Your task to perform on an android device: turn off smart reply in the gmail app Image 0: 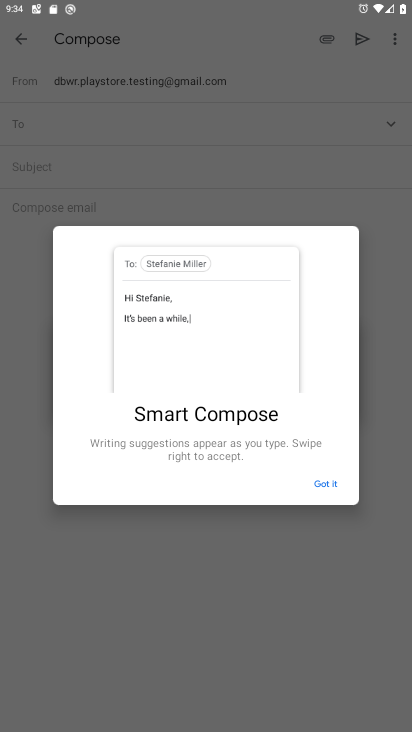
Step 0: press home button
Your task to perform on an android device: turn off smart reply in the gmail app Image 1: 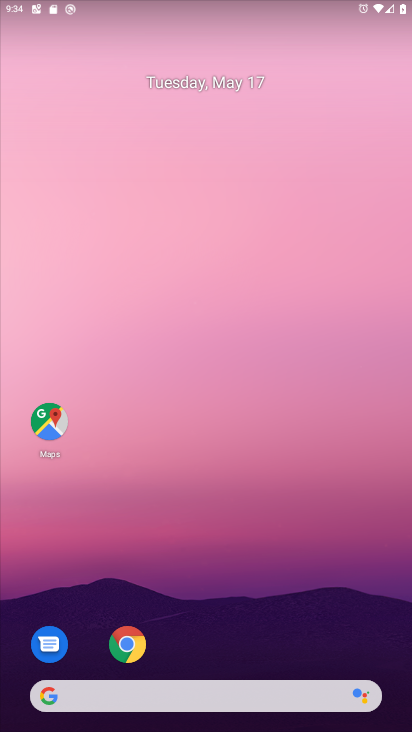
Step 1: drag from (207, 651) to (228, 59)
Your task to perform on an android device: turn off smart reply in the gmail app Image 2: 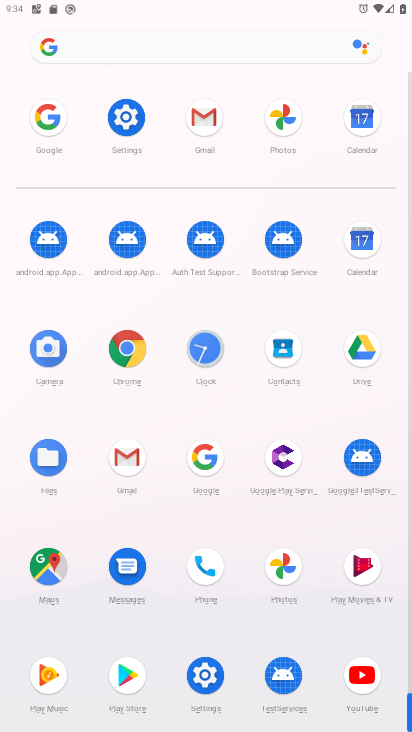
Step 2: click (126, 449)
Your task to perform on an android device: turn off smart reply in the gmail app Image 3: 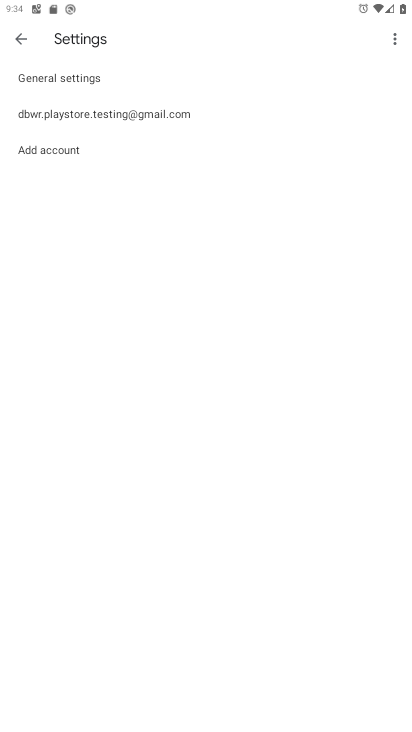
Step 3: click (69, 105)
Your task to perform on an android device: turn off smart reply in the gmail app Image 4: 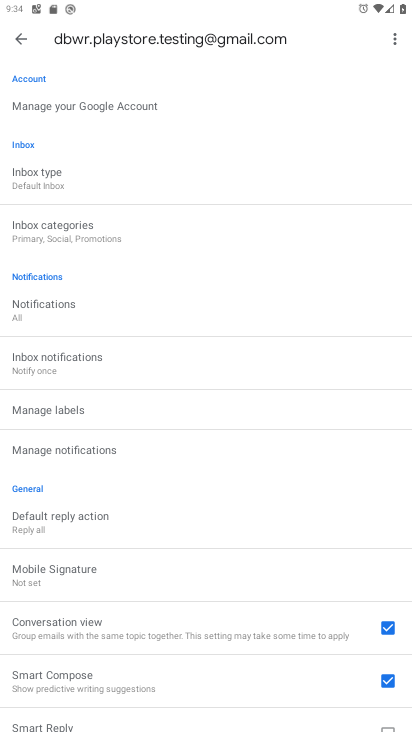
Step 4: drag from (141, 619) to (131, 260)
Your task to perform on an android device: turn off smart reply in the gmail app Image 5: 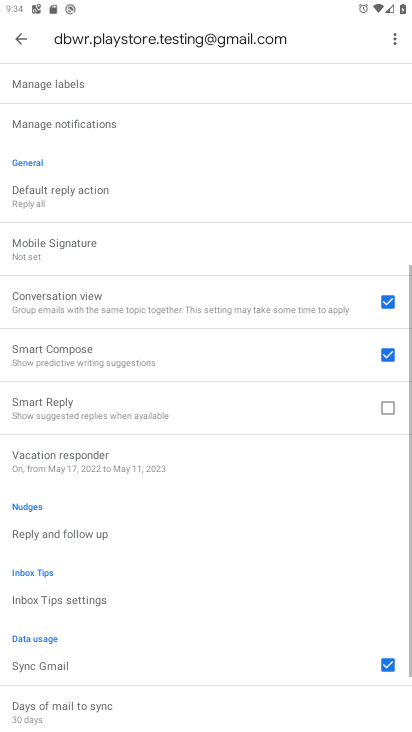
Step 5: click (127, 218)
Your task to perform on an android device: turn off smart reply in the gmail app Image 6: 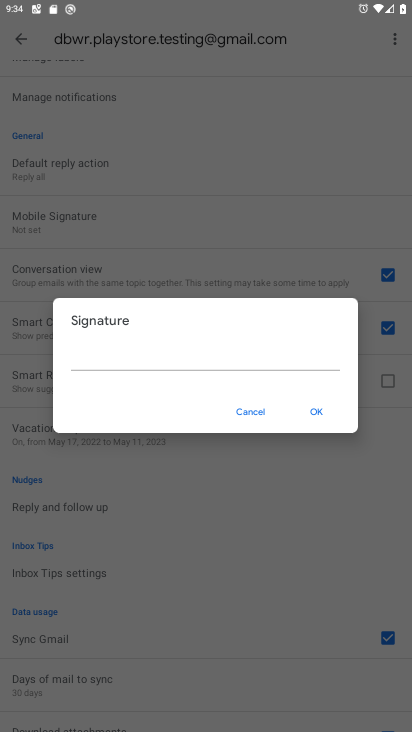
Step 6: click (242, 410)
Your task to perform on an android device: turn off smart reply in the gmail app Image 7: 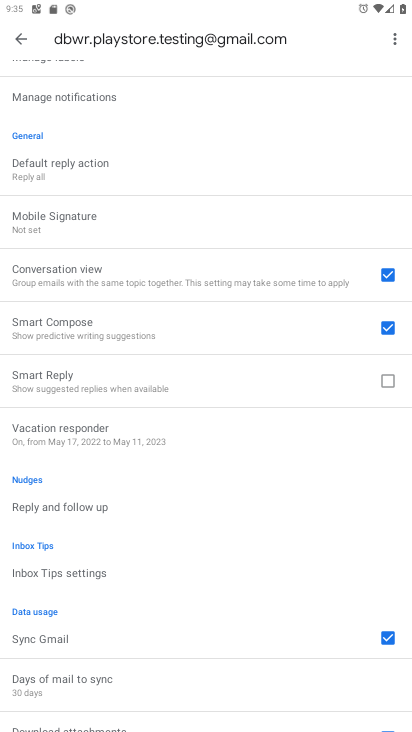
Step 7: task complete